Your task to perform on an android device: Open privacy settings Image 0: 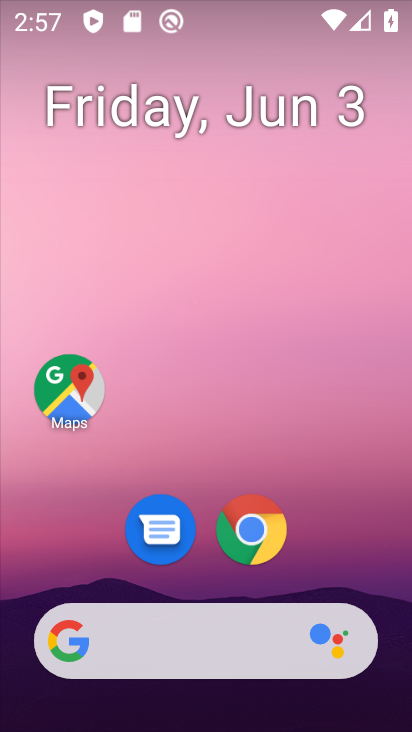
Step 0: click (255, 521)
Your task to perform on an android device: Open privacy settings Image 1: 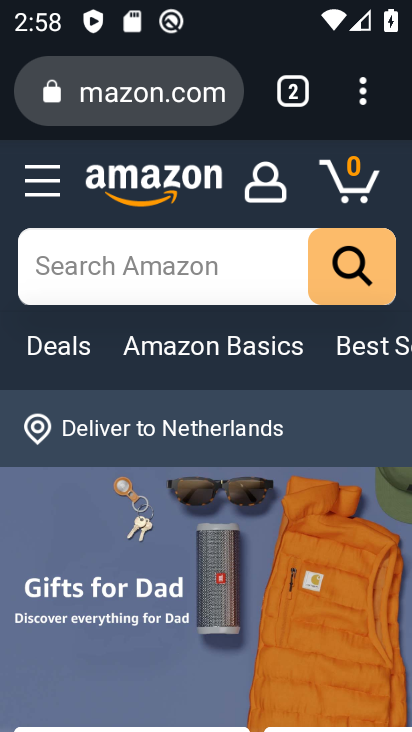
Step 1: click (363, 89)
Your task to perform on an android device: Open privacy settings Image 2: 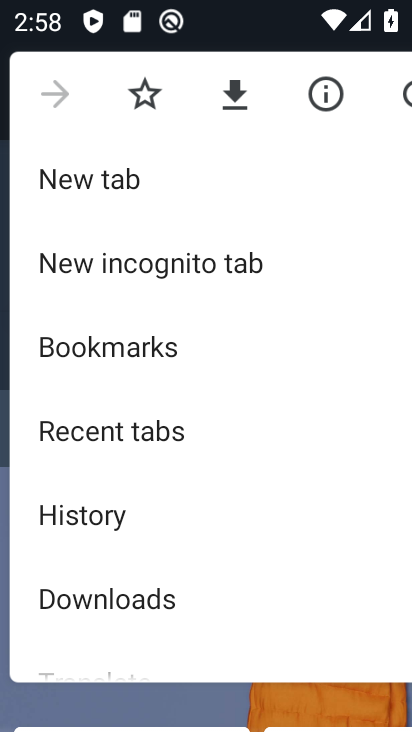
Step 2: drag from (244, 328) to (242, 270)
Your task to perform on an android device: Open privacy settings Image 3: 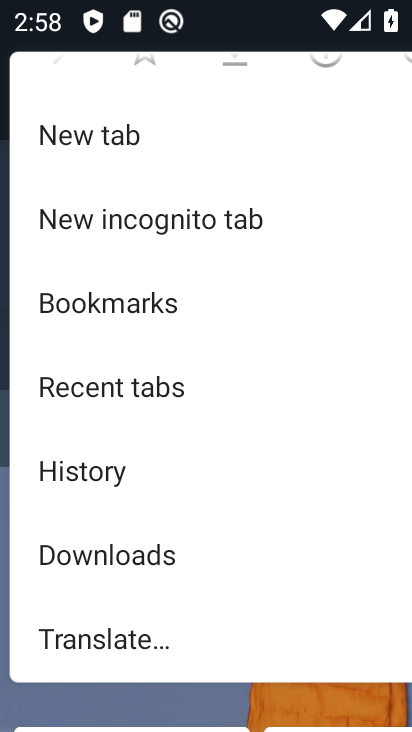
Step 3: drag from (264, 295) to (262, 252)
Your task to perform on an android device: Open privacy settings Image 4: 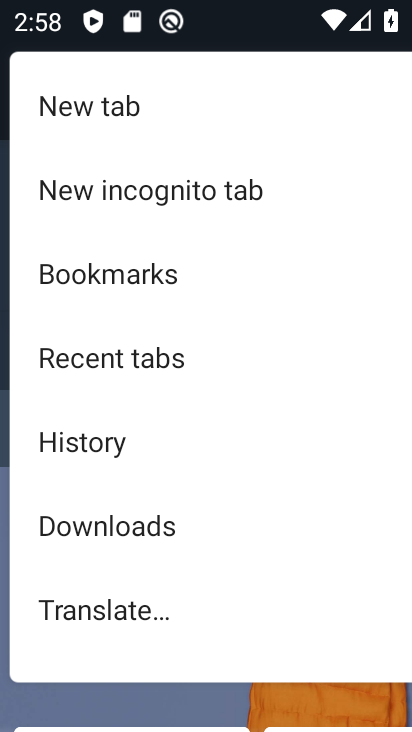
Step 4: drag from (267, 323) to (273, 228)
Your task to perform on an android device: Open privacy settings Image 5: 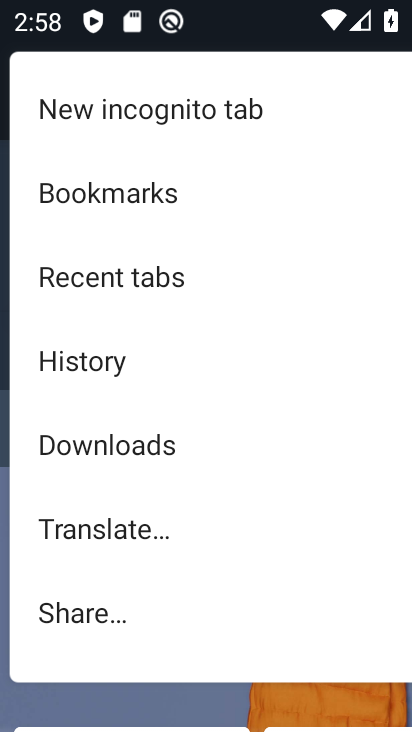
Step 5: drag from (330, 590) to (318, 257)
Your task to perform on an android device: Open privacy settings Image 6: 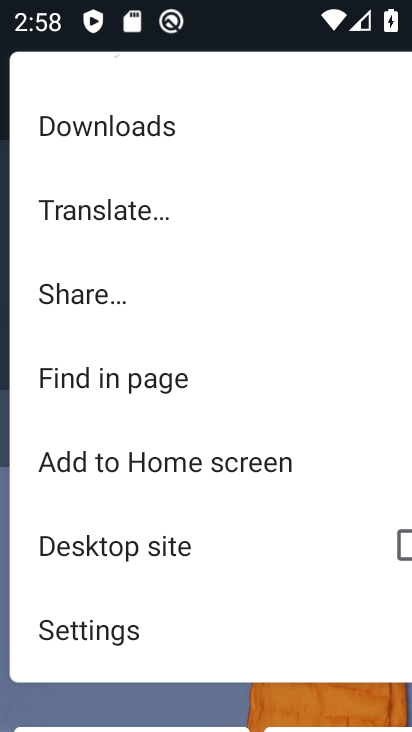
Step 6: drag from (262, 516) to (269, 320)
Your task to perform on an android device: Open privacy settings Image 7: 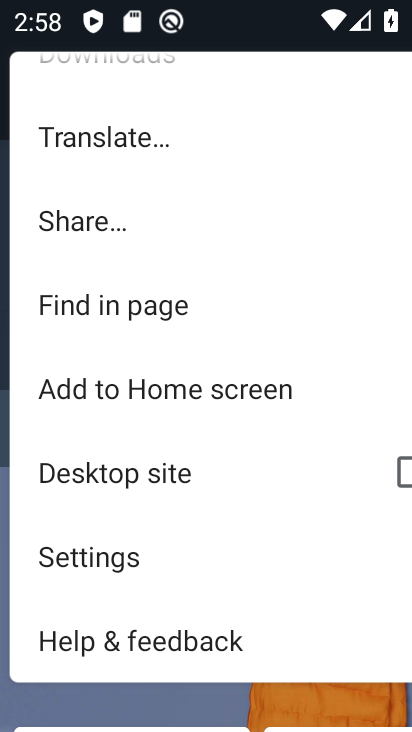
Step 7: click (91, 558)
Your task to perform on an android device: Open privacy settings Image 8: 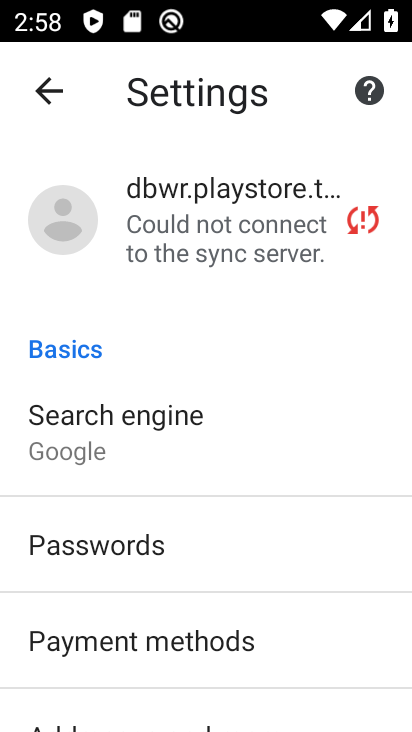
Step 8: drag from (292, 705) to (288, 174)
Your task to perform on an android device: Open privacy settings Image 9: 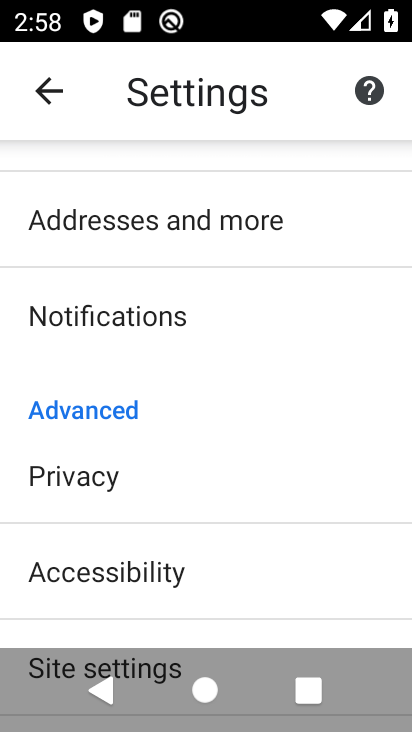
Step 9: click (55, 465)
Your task to perform on an android device: Open privacy settings Image 10: 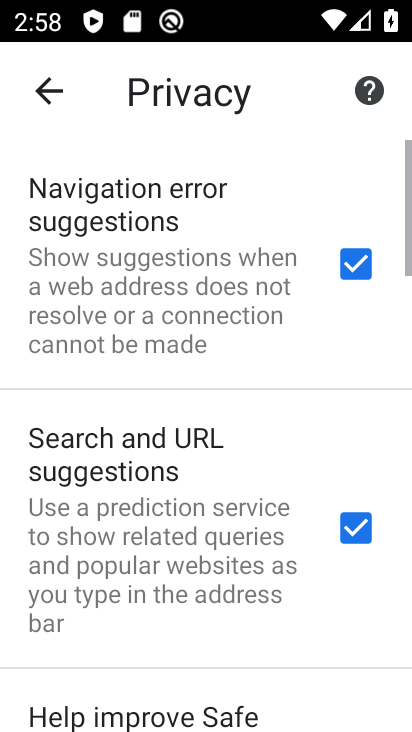
Step 10: task complete